Your task to perform on an android device: change timer sound Image 0: 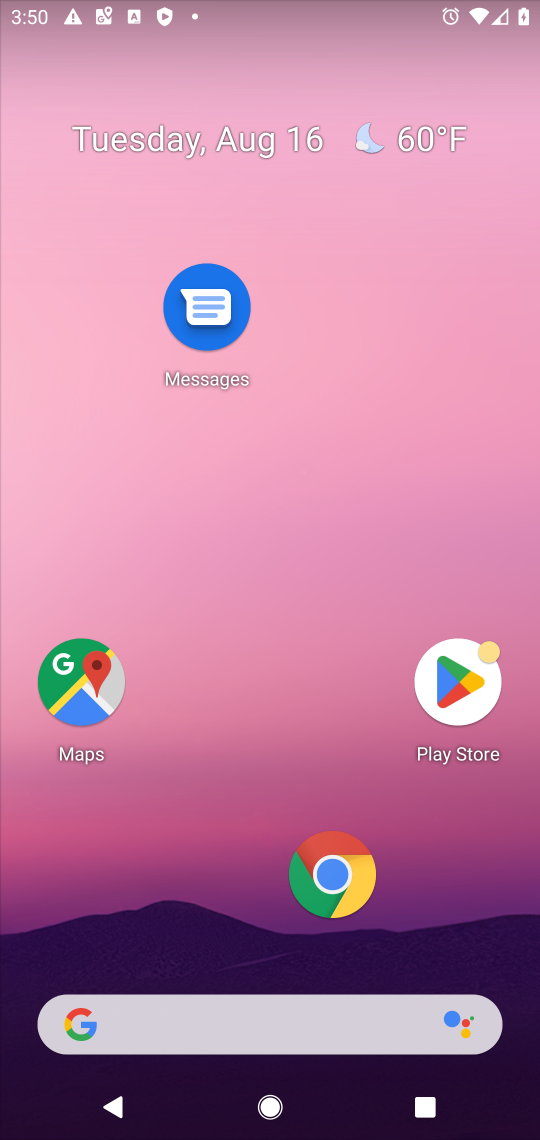
Step 0: drag from (220, 870) to (144, 144)
Your task to perform on an android device: change timer sound Image 1: 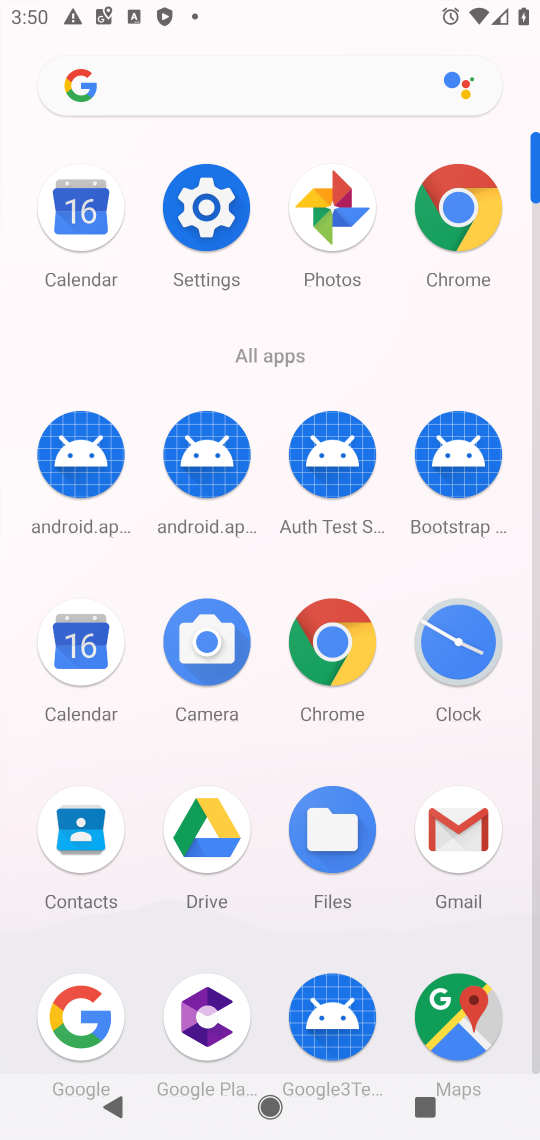
Step 1: click (450, 634)
Your task to perform on an android device: change timer sound Image 2: 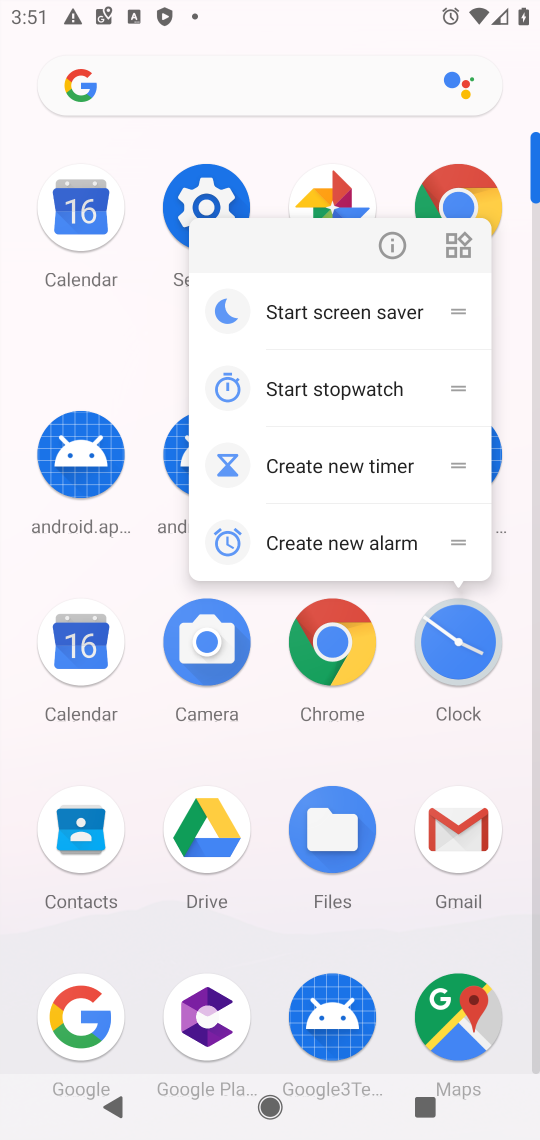
Step 2: click (468, 641)
Your task to perform on an android device: change timer sound Image 3: 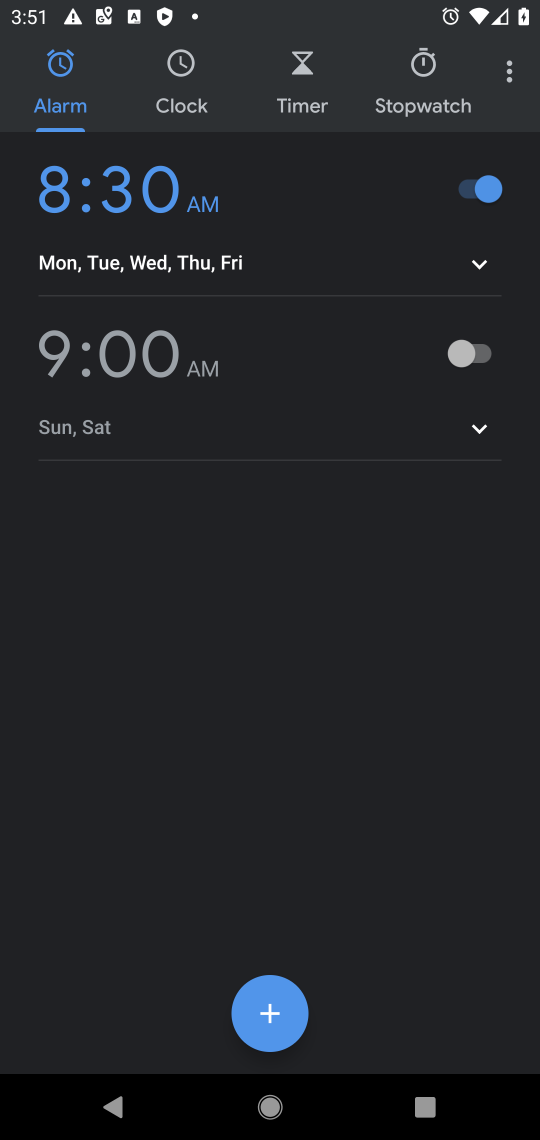
Step 3: click (302, 67)
Your task to perform on an android device: change timer sound Image 4: 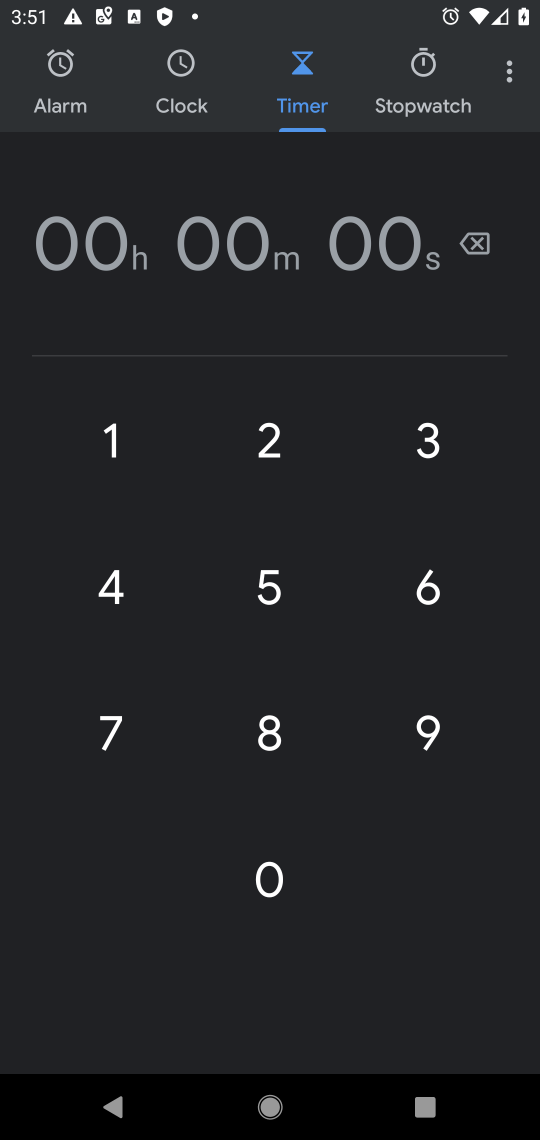
Step 4: click (504, 75)
Your task to perform on an android device: change timer sound Image 5: 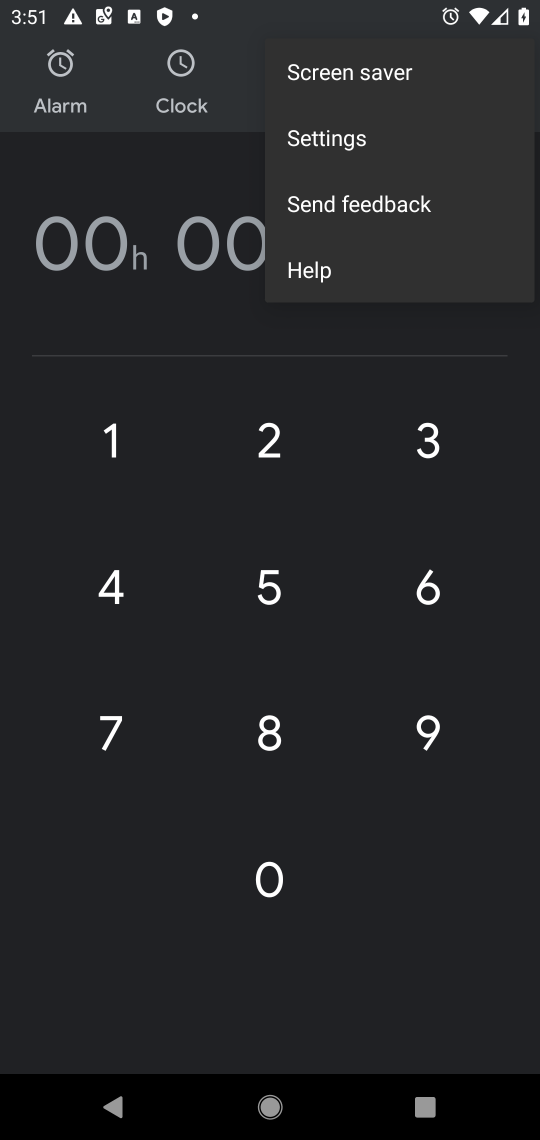
Step 5: click (349, 143)
Your task to perform on an android device: change timer sound Image 6: 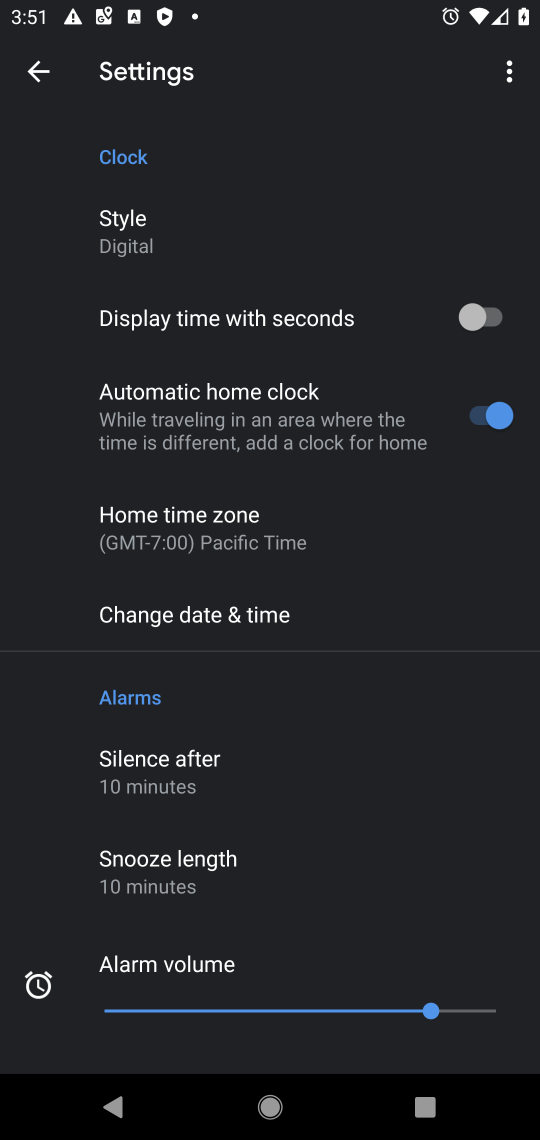
Step 6: drag from (338, 908) to (349, 233)
Your task to perform on an android device: change timer sound Image 7: 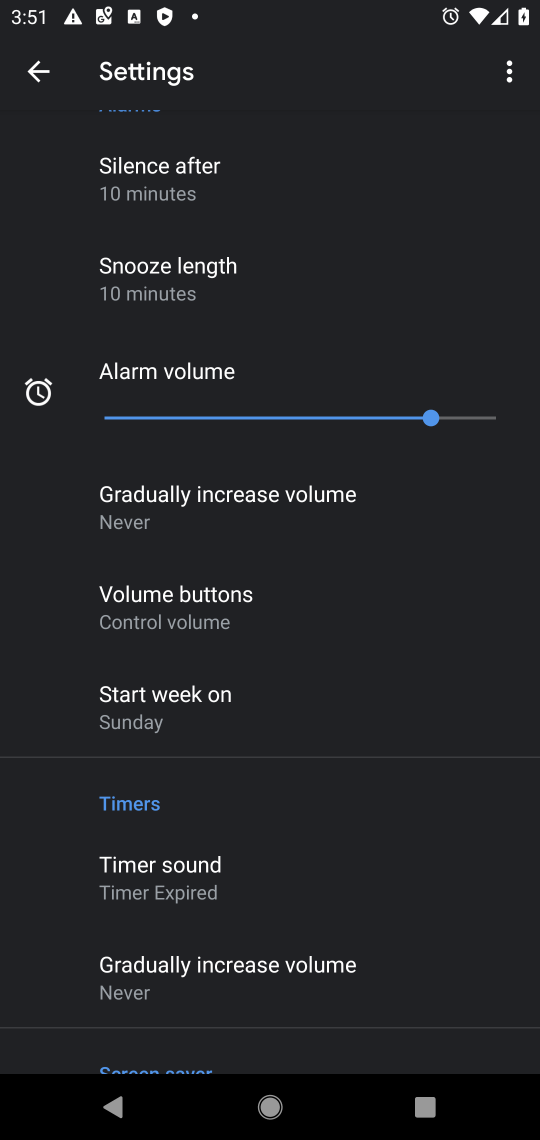
Step 7: drag from (324, 940) to (310, 471)
Your task to perform on an android device: change timer sound Image 8: 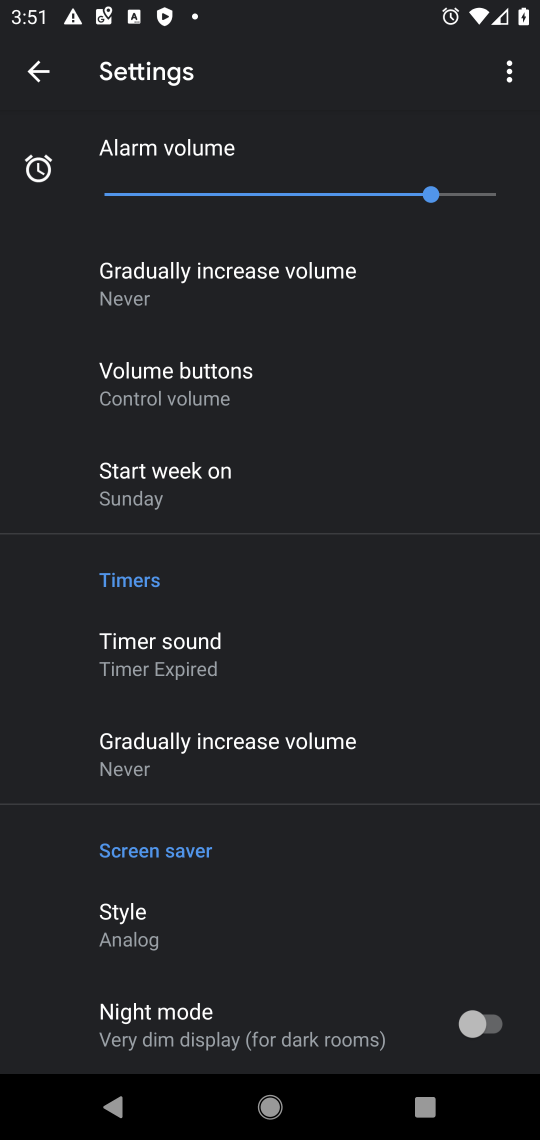
Step 8: click (176, 660)
Your task to perform on an android device: change timer sound Image 9: 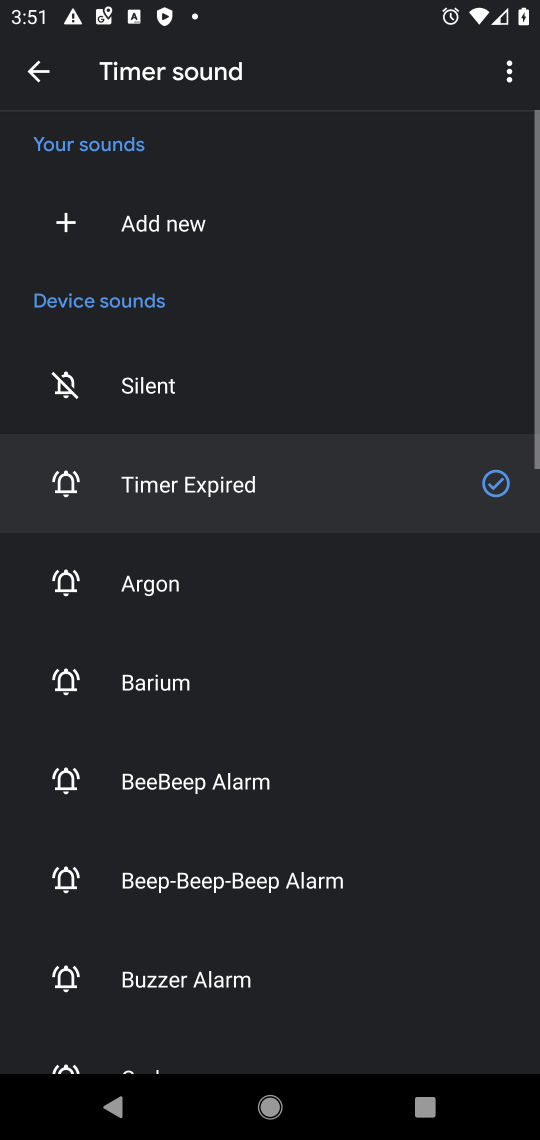
Step 9: click (167, 573)
Your task to perform on an android device: change timer sound Image 10: 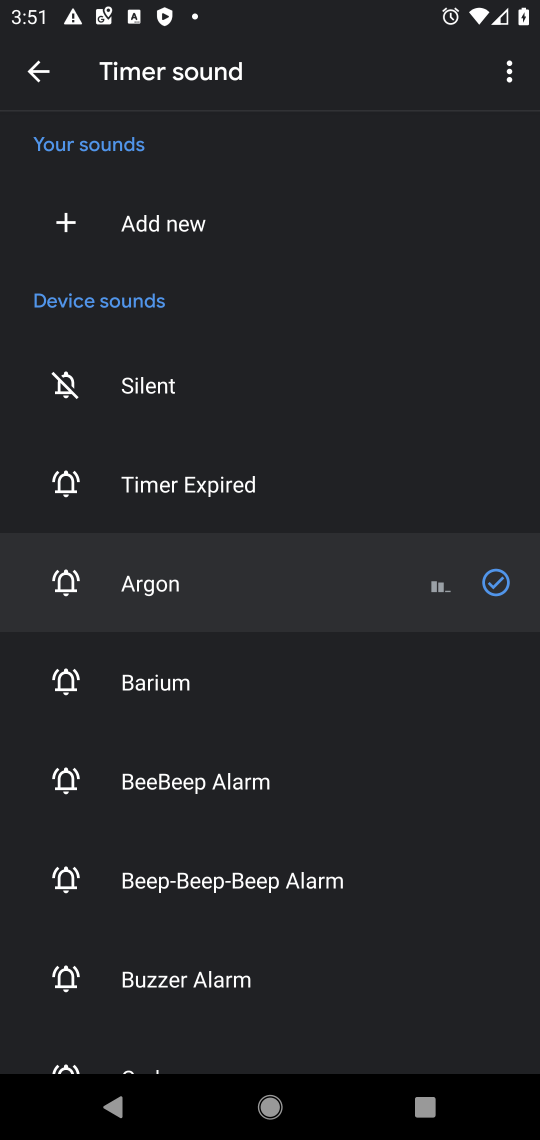
Step 10: task complete